Your task to perform on an android device: delete browsing data in the chrome app Image 0: 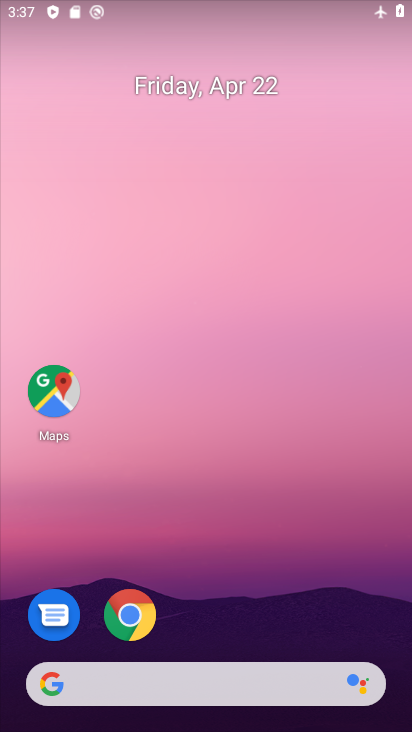
Step 0: click (129, 616)
Your task to perform on an android device: delete browsing data in the chrome app Image 1: 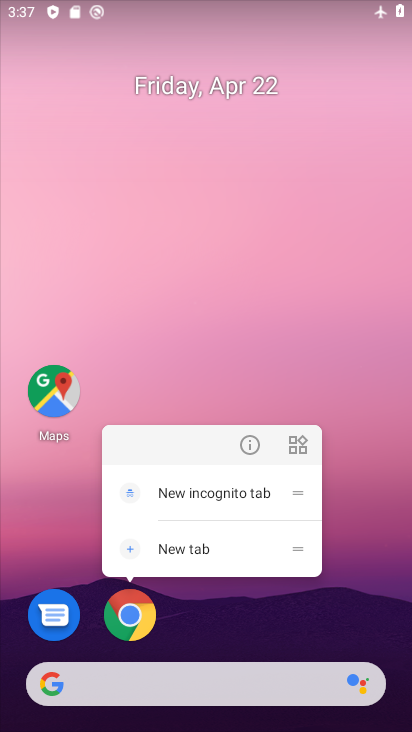
Step 1: click (127, 616)
Your task to perform on an android device: delete browsing data in the chrome app Image 2: 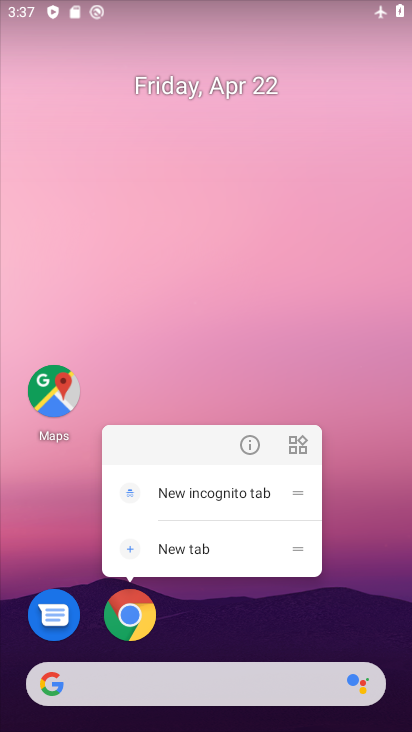
Step 2: click (127, 616)
Your task to perform on an android device: delete browsing data in the chrome app Image 3: 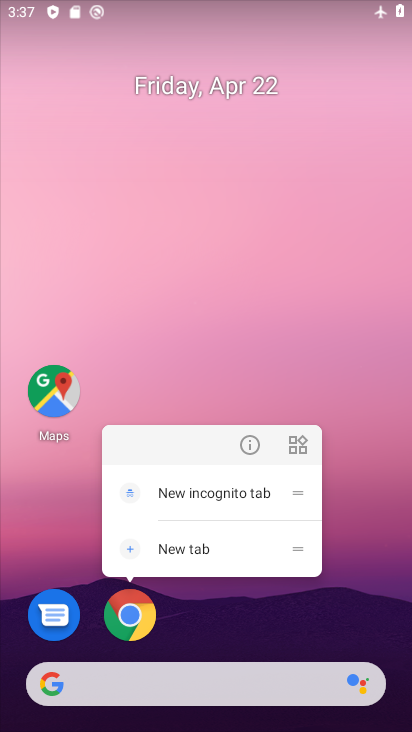
Step 3: click (127, 616)
Your task to perform on an android device: delete browsing data in the chrome app Image 4: 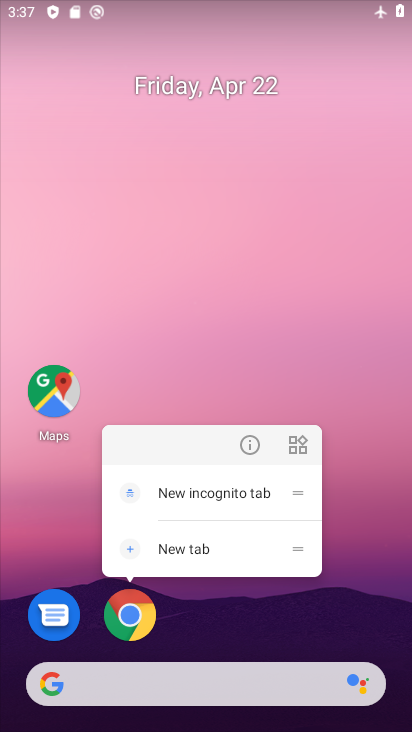
Step 4: click (127, 616)
Your task to perform on an android device: delete browsing data in the chrome app Image 5: 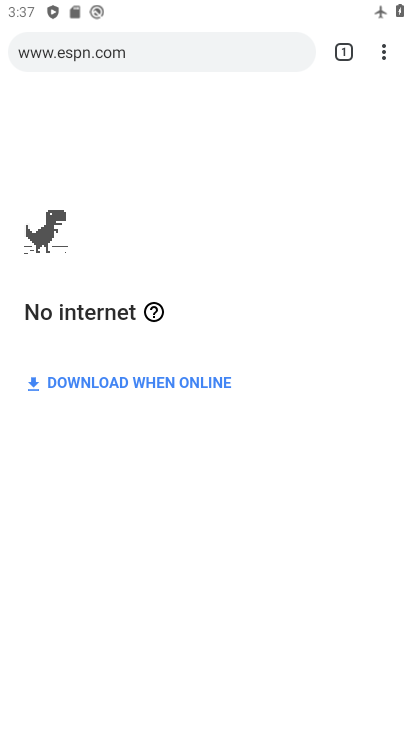
Step 5: click (385, 49)
Your task to perform on an android device: delete browsing data in the chrome app Image 6: 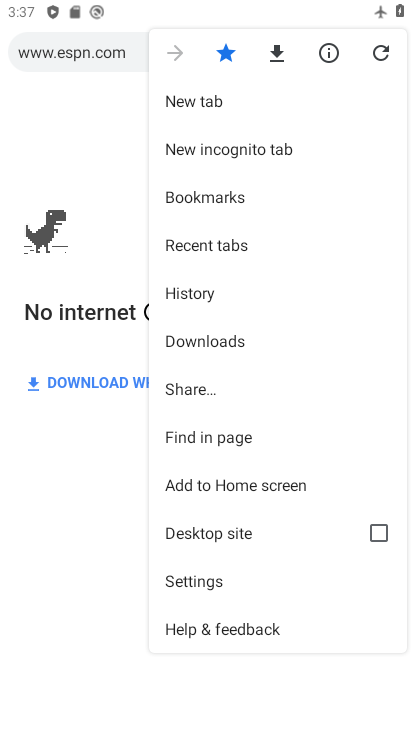
Step 6: click (204, 583)
Your task to perform on an android device: delete browsing data in the chrome app Image 7: 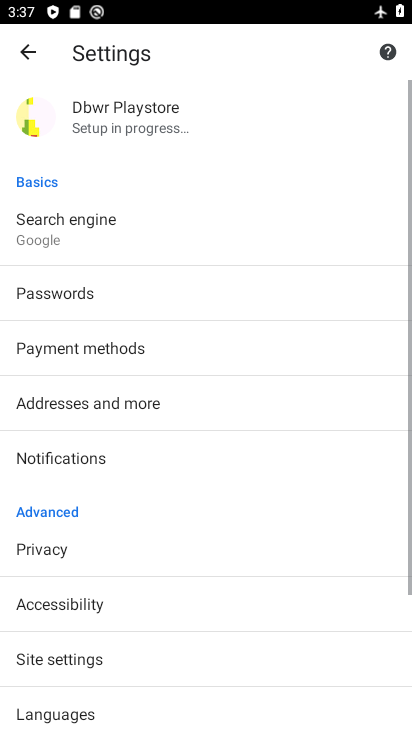
Step 7: click (41, 553)
Your task to perform on an android device: delete browsing data in the chrome app Image 8: 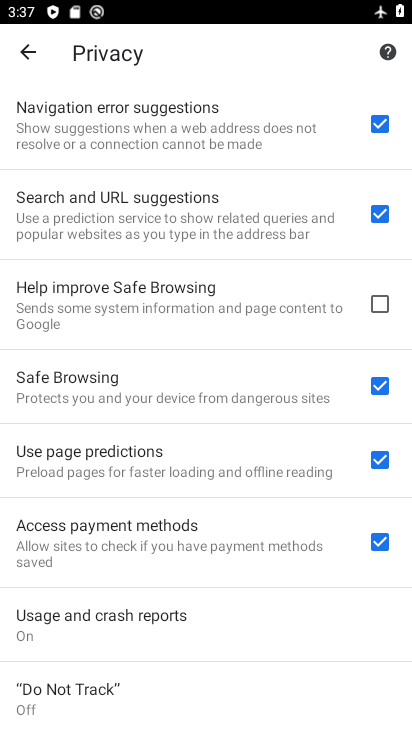
Step 8: drag from (103, 688) to (151, 343)
Your task to perform on an android device: delete browsing data in the chrome app Image 9: 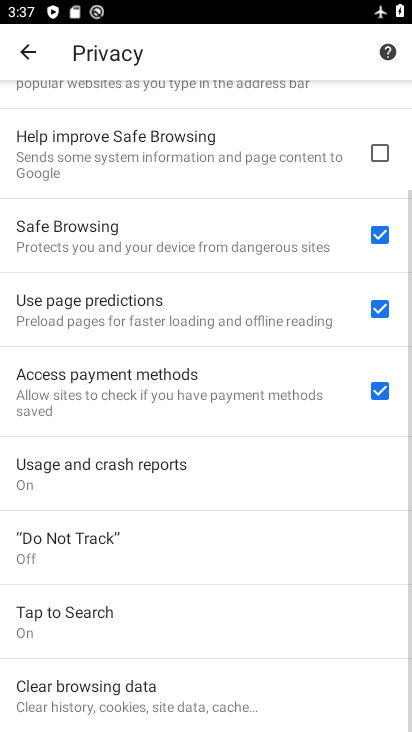
Step 9: click (124, 695)
Your task to perform on an android device: delete browsing data in the chrome app Image 10: 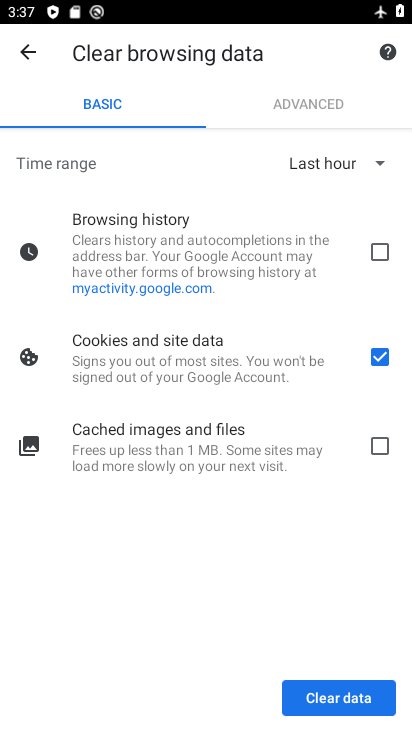
Step 10: click (379, 441)
Your task to perform on an android device: delete browsing data in the chrome app Image 11: 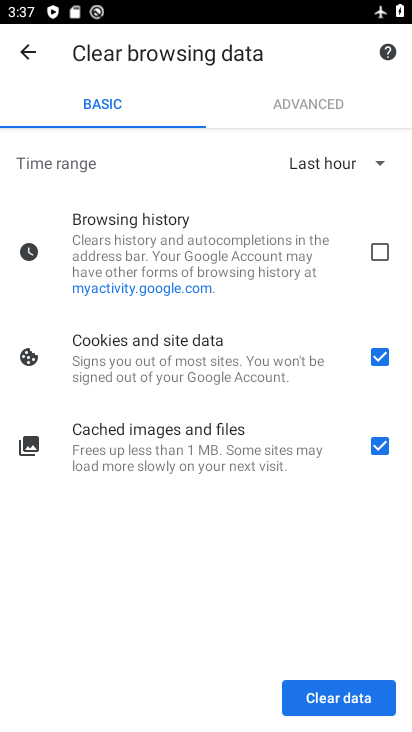
Step 11: click (371, 253)
Your task to perform on an android device: delete browsing data in the chrome app Image 12: 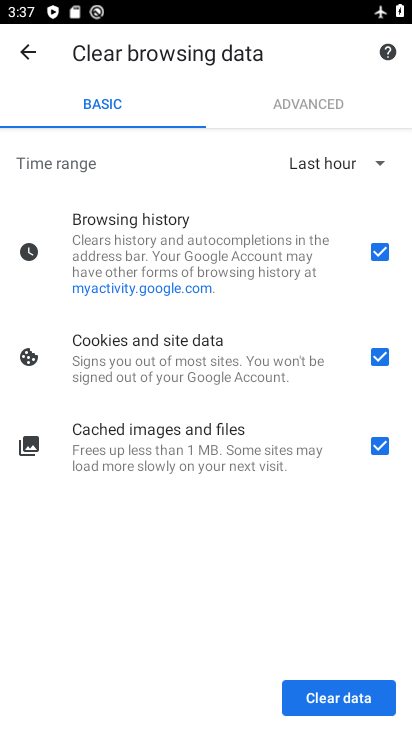
Step 12: click (341, 166)
Your task to perform on an android device: delete browsing data in the chrome app Image 13: 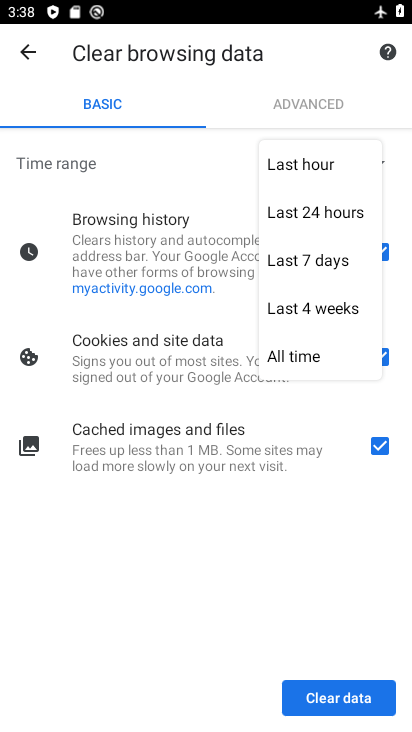
Step 13: click (319, 355)
Your task to perform on an android device: delete browsing data in the chrome app Image 14: 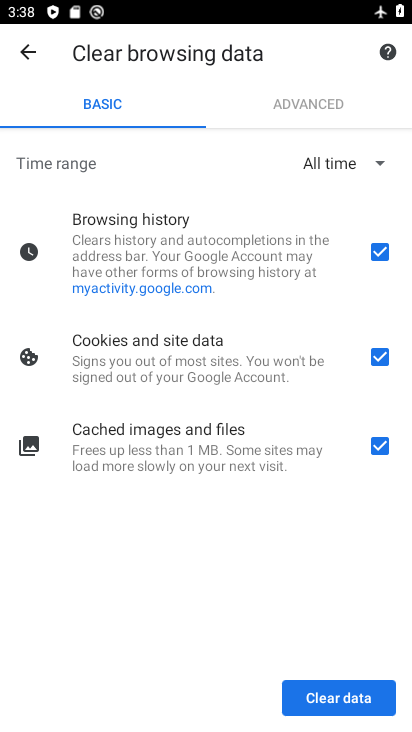
Step 14: click (331, 697)
Your task to perform on an android device: delete browsing data in the chrome app Image 15: 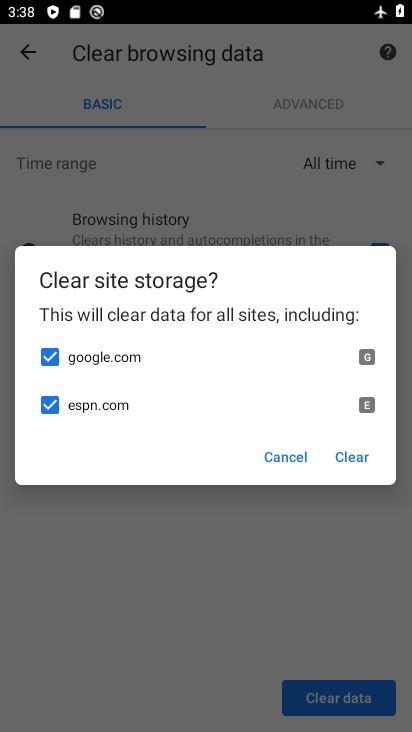
Step 15: click (340, 449)
Your task to perform on an android device: delete browsing data in the chrome app Image 16: 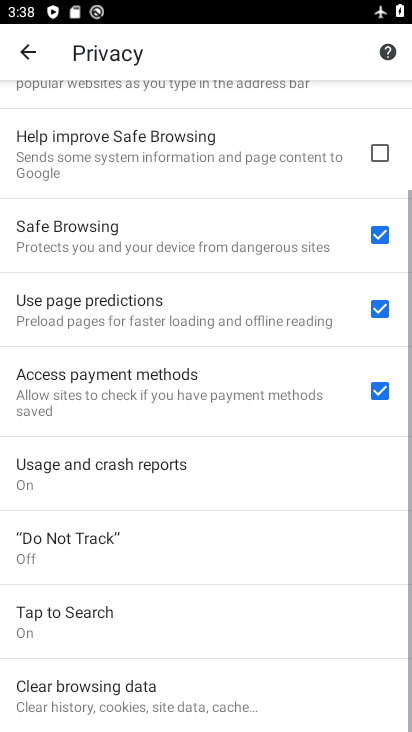
Step 16: task complete